Your task to perform on an android device: Open settings Image 0: 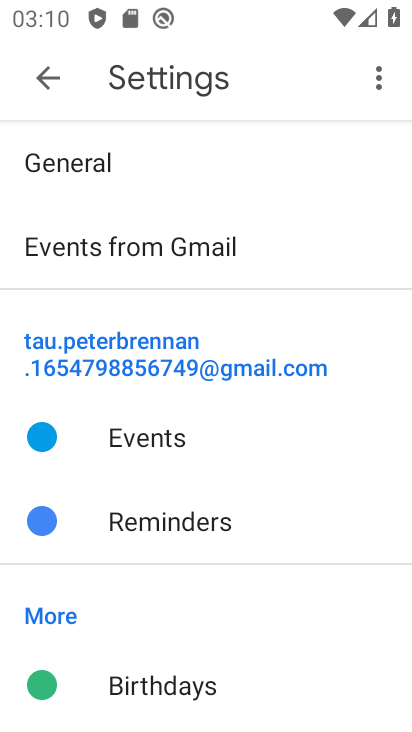
Step 0: task complete